Your task to perform on an android device: Open calendar and show me the fourth week of next month Image 0: 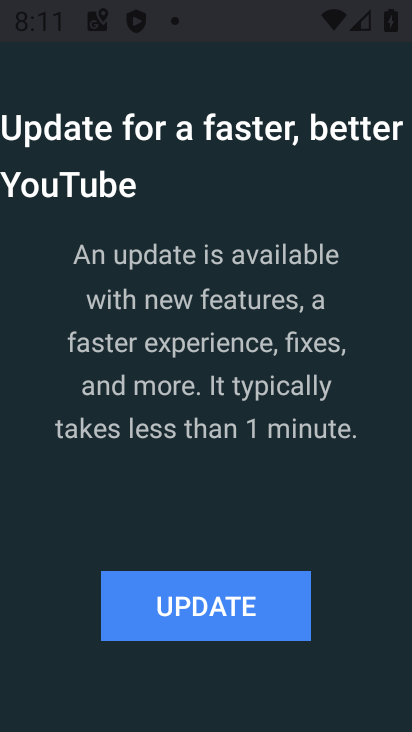
Step 0: press home button
Your task to perform on an android device: Open calendar and show me the fourth week of next month Image 1: 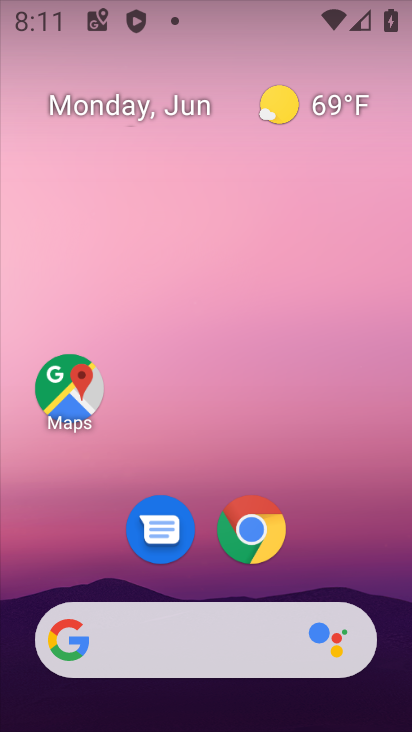
Step 1: drag from (325, 508) to (298, 342)
Your task to perform on an android device: Open calendar and show me the fourth week of next month Image 2: 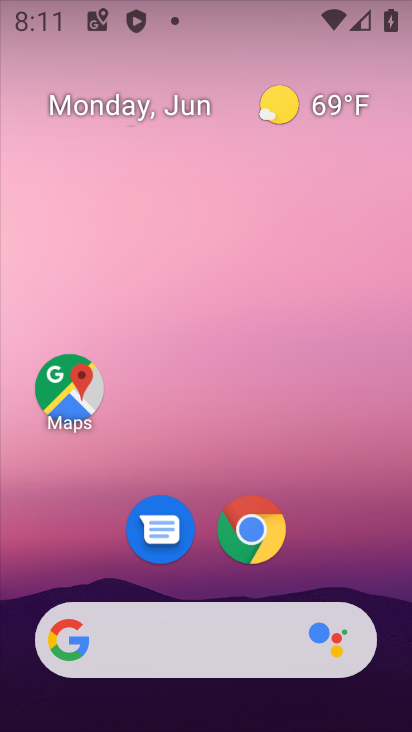
Step 2: drag from (364, 505) to (367, 84)
Your task to perform on an android device: Open calendar and show me the fourth week of next month Image 3: 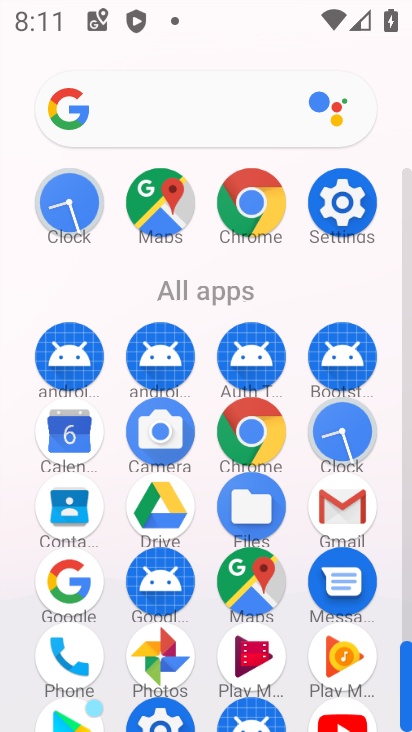
Step 3: click (59, 444)
Your task to perform on an android device: Open calendar and show me the fourth week of next month Image 4: 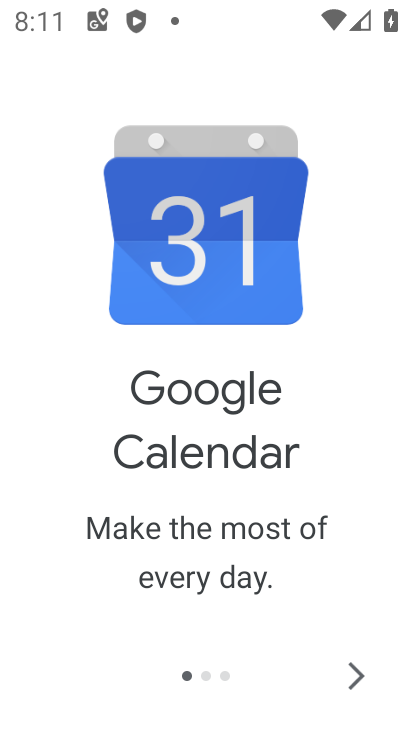
Step 4: click (357, 668)
Your task to perform on an android device: Open calendar and show me the fourth week of next month Image 5: 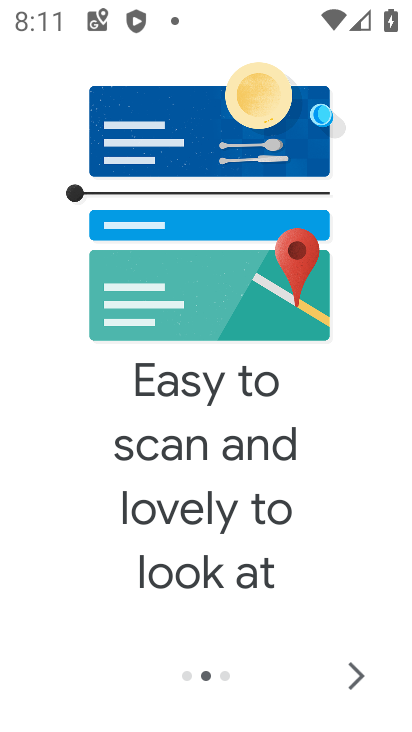
Step 5: click (357, 668)
Your task to perform on an android device: Open calendar and show me the fourth week of next month Image 6: 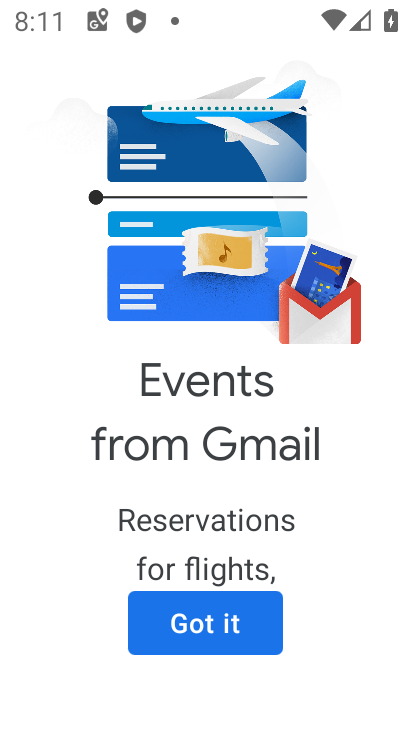
Step 6: click (217, 610)
Your task to perform on an android device: Open calendar and show me the fourth week of next month Image 7: 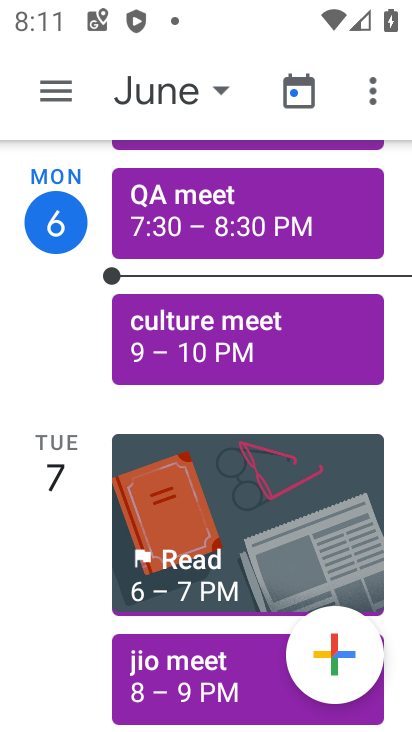
Step 7: click (189, 76)
Your task to perform on an android device: Open calendar and show me the fourth week of next month Image 8: 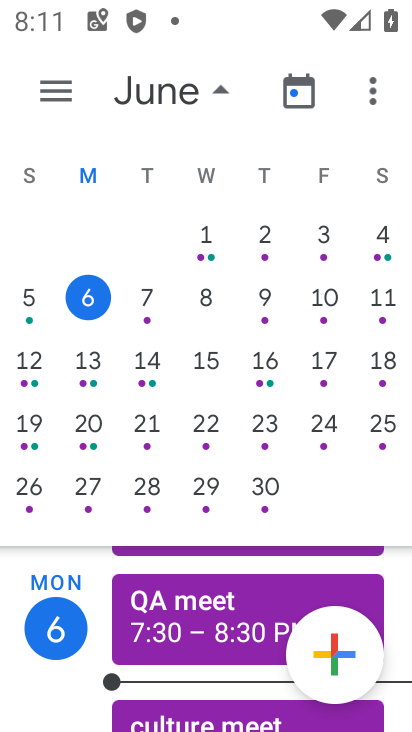
Step 8: task complete